Your task to perform on an android device: Open the calendar app, open the side menu, and click the "Day" option Image 0: 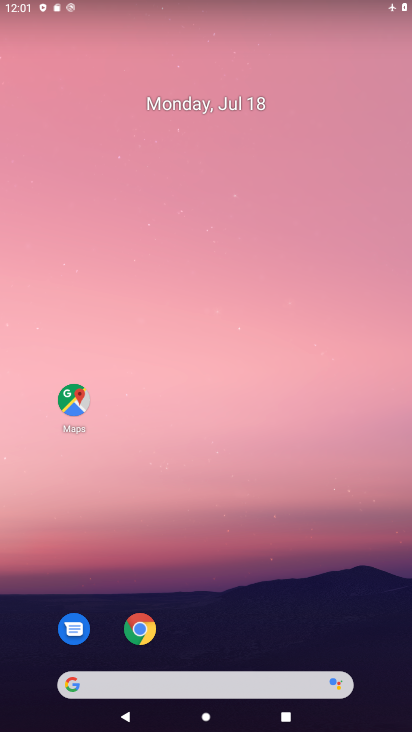
Step 0: press home button
Your task to perform on an android device: Open the calendar app, open the side menu, and click the "Day" option Image 1: 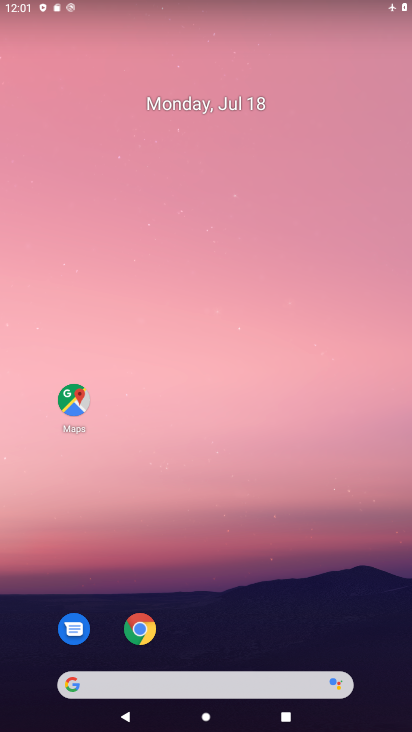
Step 1: drag from (216, 652) to (129, 2)
Your task to perform on an android device: Open the calendar app, open the side menu, and click the "Day" option Image 2: 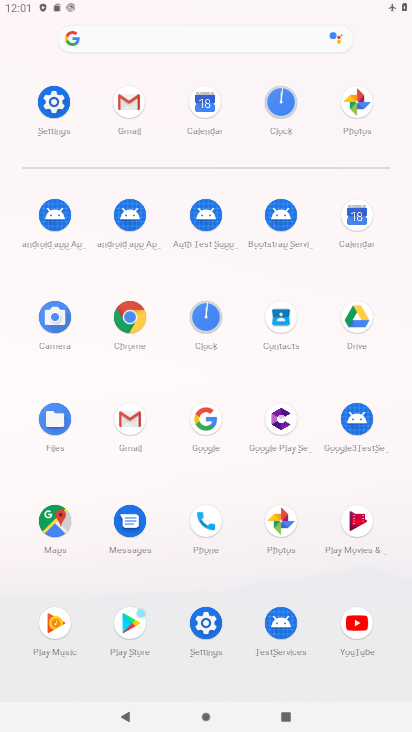
Step 2: click (357, 217)
Your task to perform on an android device: Open the calendar app, open the side menu, and click the "Day" option Image 3: 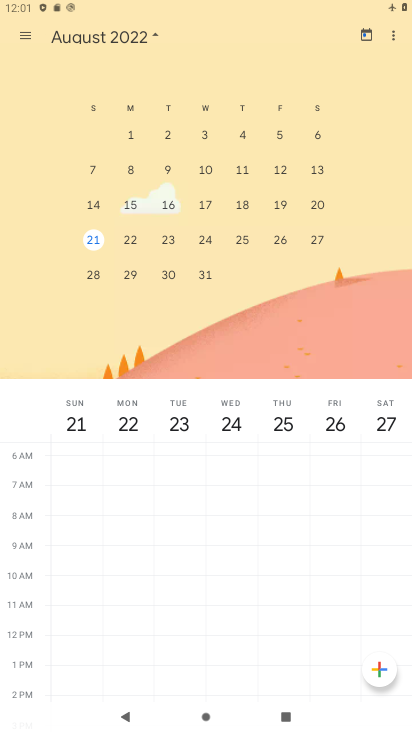
Step 3: drag from (99, 213) to (346, 247)
Your task to perform on an android device: Open the calendar app, open the side menu, and click the "Day" option Image 4: 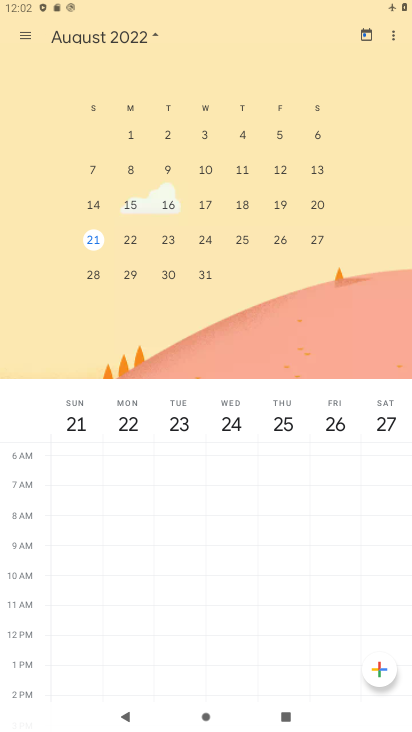
Step 4: drag from (103, 216) to (394, 231)
Your task to perform on an android device: Open the calendar app, open the side menu, and click the "Day" option Image 5: 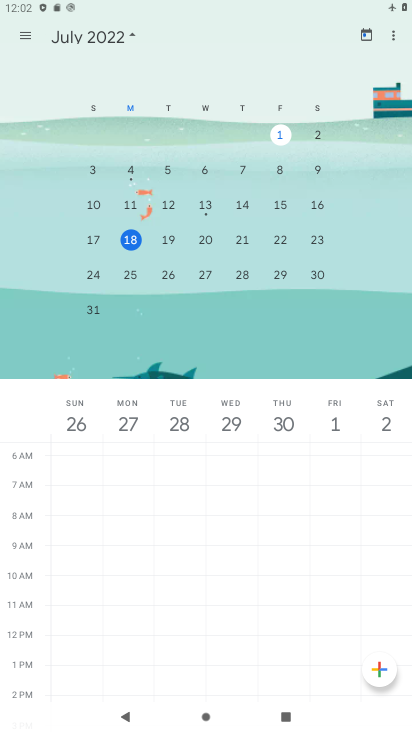
Step 5: click (24, 31)
Your task to perform on an android device: Open the calendar app, open the side menu, and click the "Day" option Image 6: 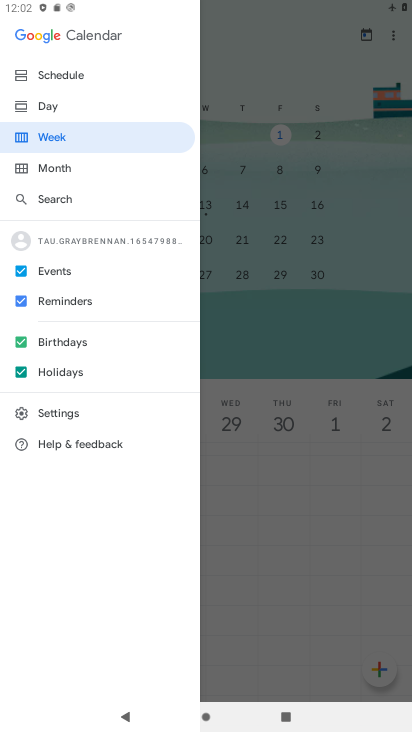
Step 6: click (22, 299)
Your task to perform on an android device: Open the calendar app, open the side menu, and click the "Day" option Image 7: 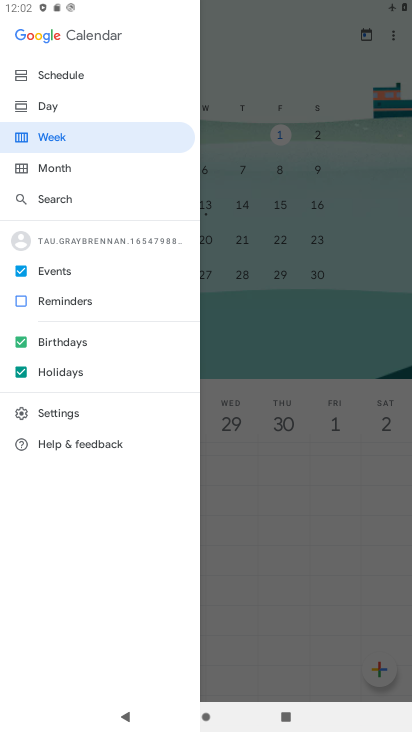
Step 7: click (29, 107)
Your task to perform on an android device: Open the calendar app, open the side menu, and click the "Day" option Image 8: 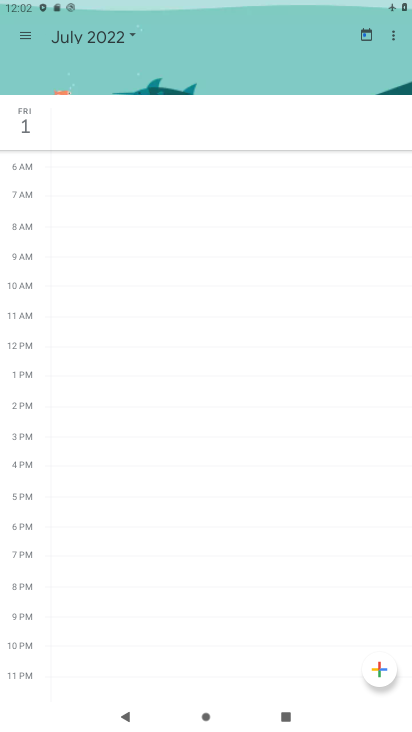
Step 8: task complete